Your task to perform on an android device: turn on improve location accuracy Image 0: 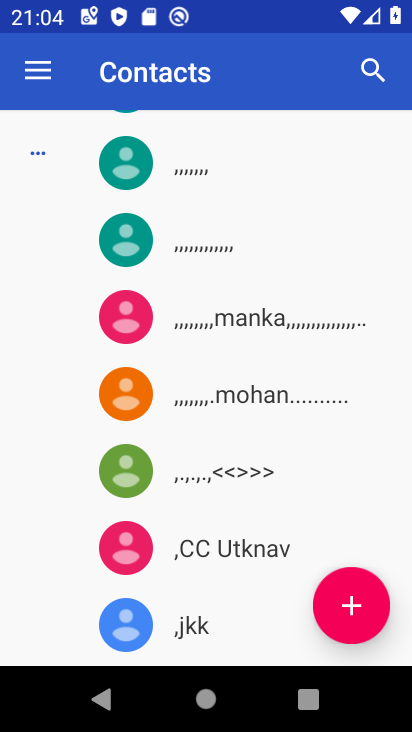
Step 0: press home button
Your task to perform on an android device: turn on improve location accuracy Image 1: 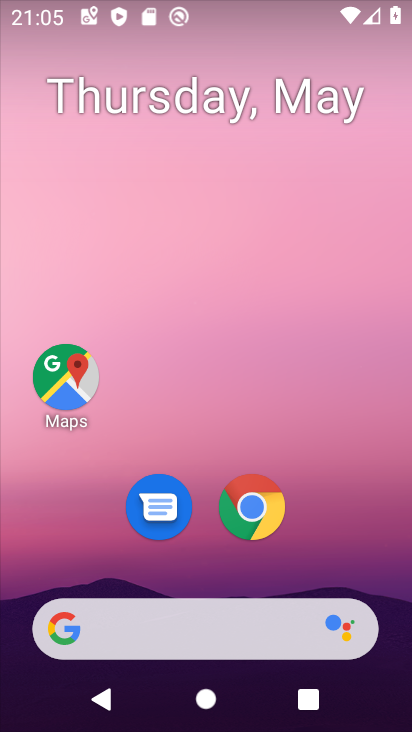
Step 1: drag from (239, 654) to (269, 280)
Your task to perform on an android device: turn on improve location accuracy Image 2: 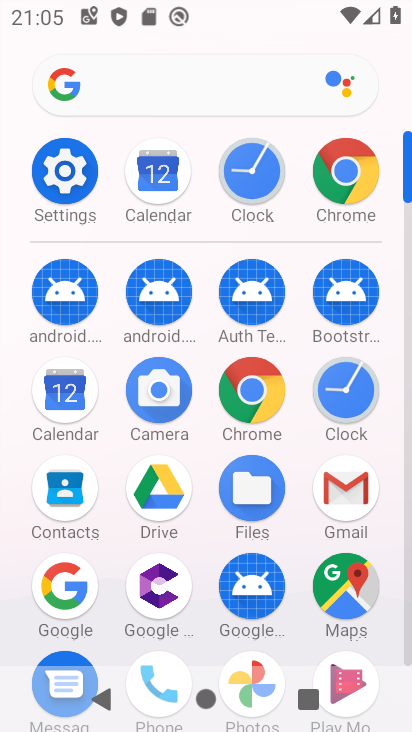
Step 2: click (80, 151)
Your task to perform on an android device: turn on improve location accuracy Image 3: 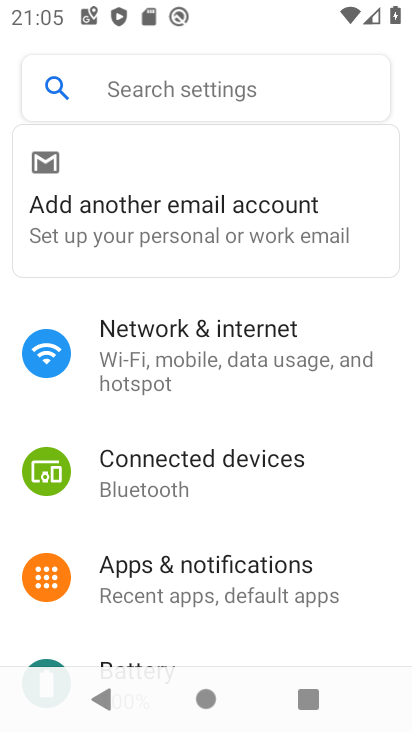
Step 3: click (171, 99)
Your task to perform on an android device: turn on improve location accuracy Image 4: 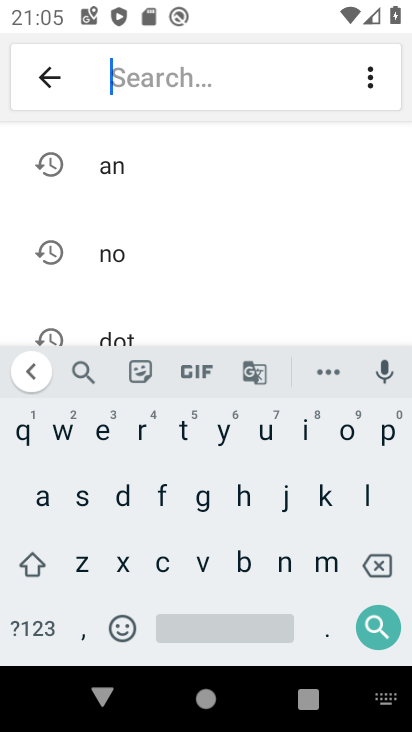
Step 4: click (364, 499)
Your task to perform on an android device: turn on improve location accuracy Image 5: 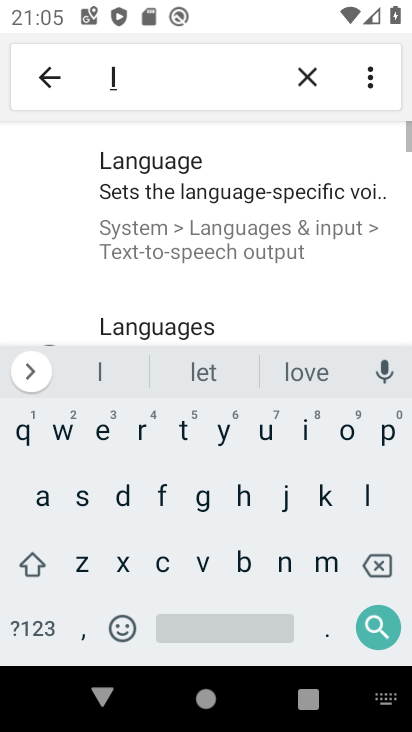
Step 5: click (345, 438)
Your task to perform on an android device: turn on improve location accuracy Image 6: 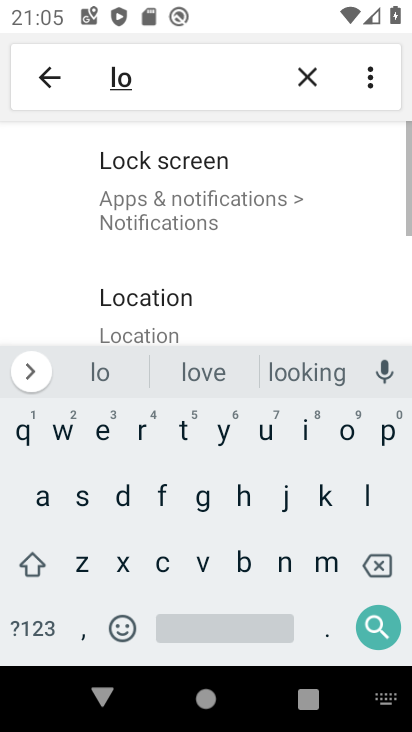
Step 6: click (175, 302)
Your task to perform on an android device: turn on improve location accuracy Image 7: 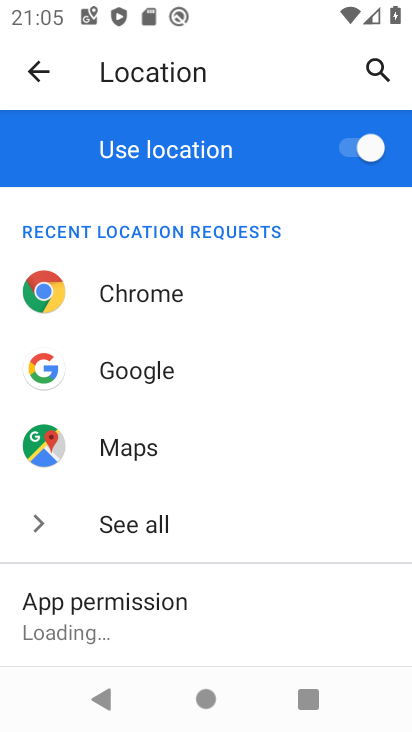
Step 7: drag from (87, 588) to (172, 284)
Your task to perform on an android device: turn on improve location accuracy Image 8: 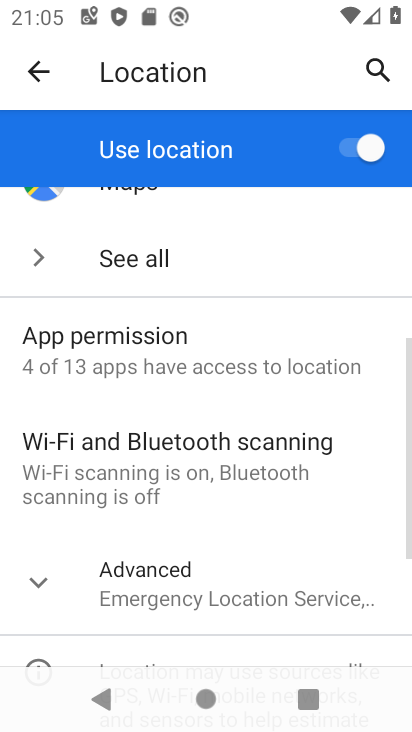
Step 8: click (53, 599)
Your task to perform on an android device: turn on improve location accuracy Image 9: 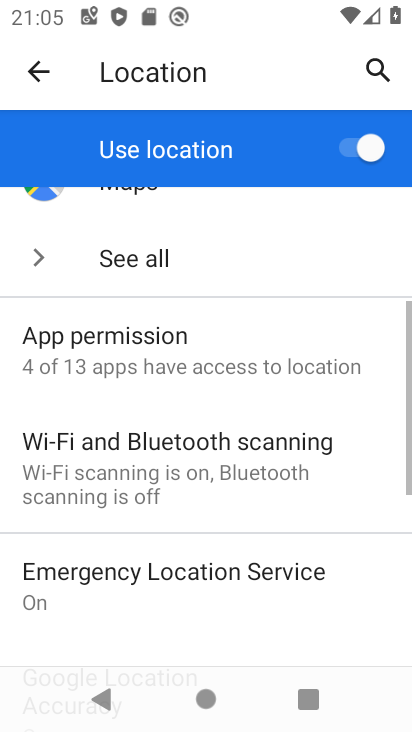
Step 9: drag from (134, 609) to (209, 339)
Your task to perform on an android device: turn on improve location accuracy Image 10: 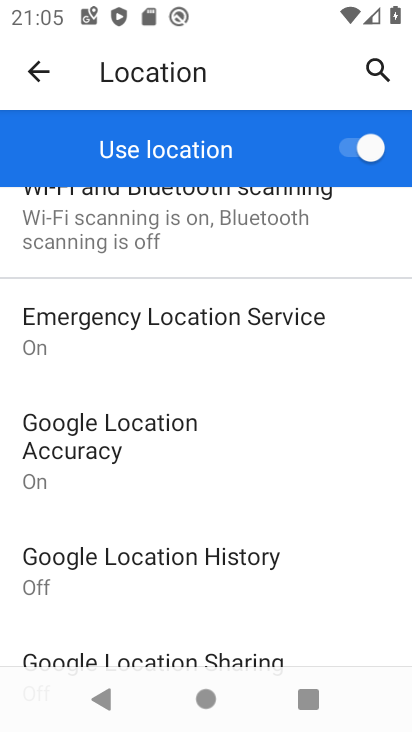
Step 10: click (128, 466)
Your task to perform on an android device: turn on improve location accuracy Image 11: 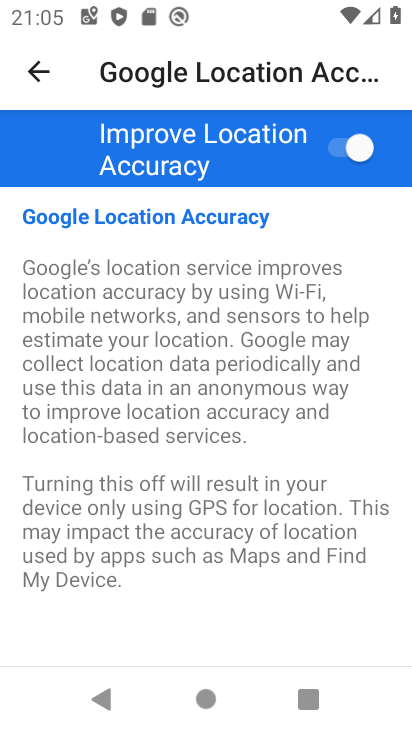
Step 11: click (358, 160)
Your task to perform on an android device: turn on improve location accuracy Image 12: 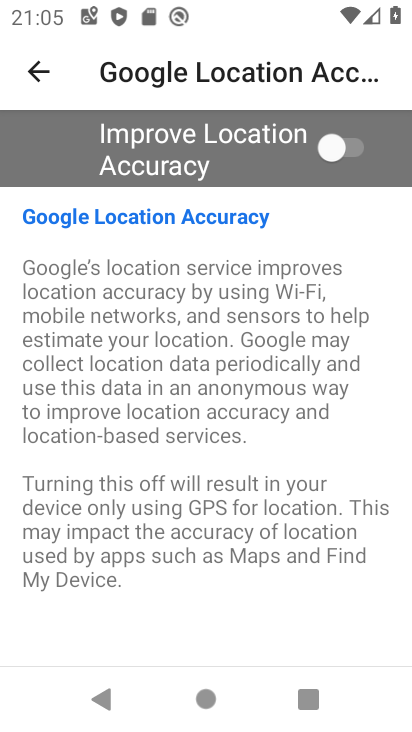
Step 12: click (353, 161)
Your task to perform on an android device: turn on improve location accuracy Image 13: 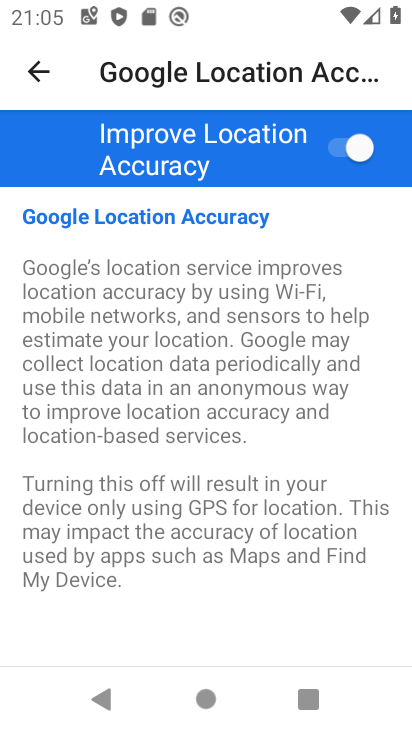
Step 13: task complete